Your task to perform on an android device: open device folders in google photos Image 0: 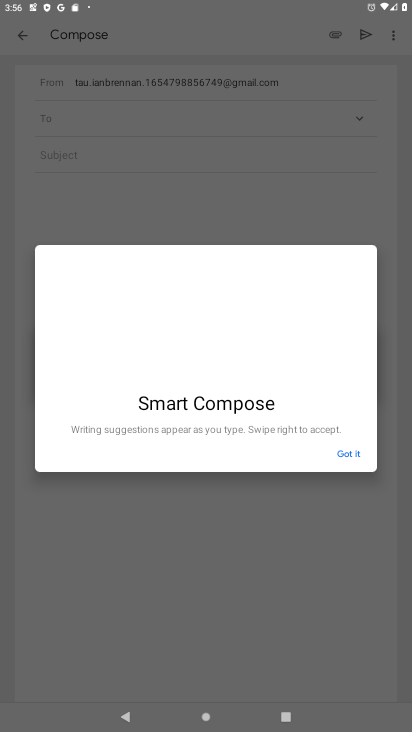
Step 0: press home button
Your task to perform on an android device: open device folders in google photos Image 1: 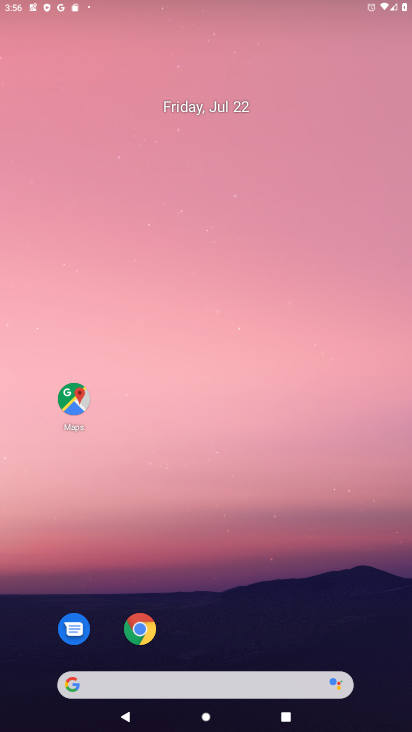
Step 1: drag from (219, 694) to (193, 138)
Your task to perform on an android device: open device folders in google photos Image 2: 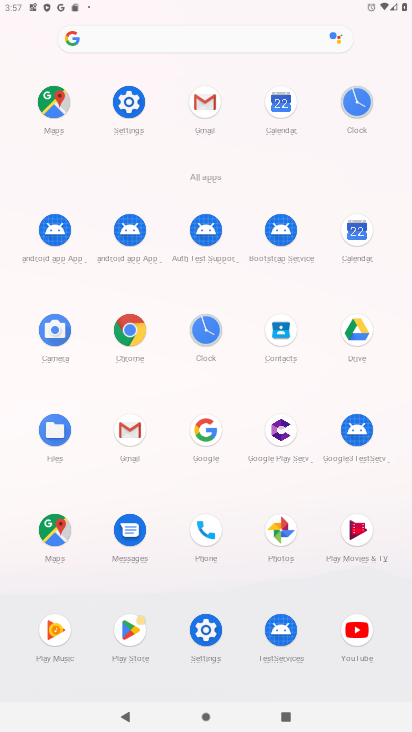
Step 2: click (289, 551)
Your task to perform on an android device: open device folders in google photos Image 3: 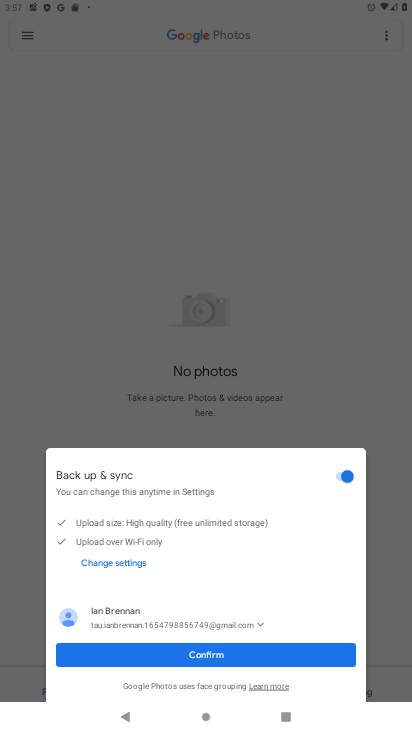
Step 3: click (251, 663)
Your task to perform on an android device: open device folders in google photos Image 4: 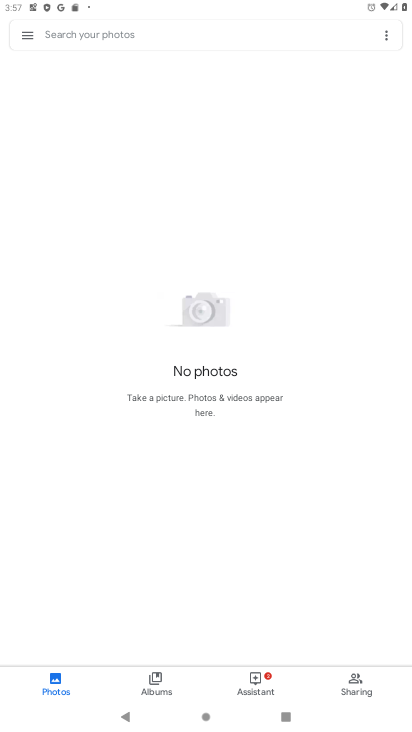
Step 4: click (24, 43)
Your task to perform on an android device: open device folders in google photos Image 5: 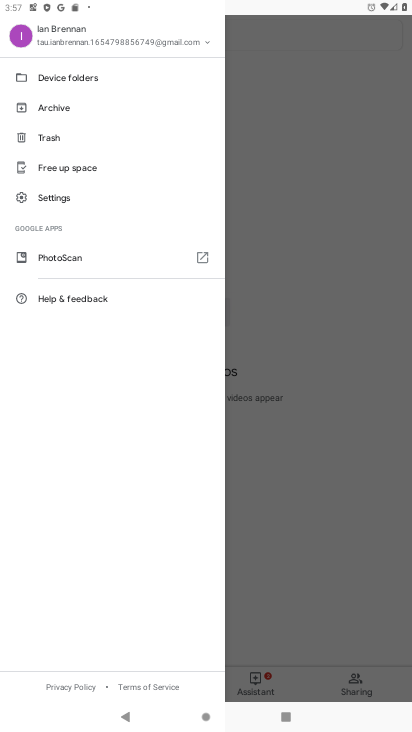
Step 5: click (85, 80)
Your task to perform on an android device: open device folders in google photos Image 6: 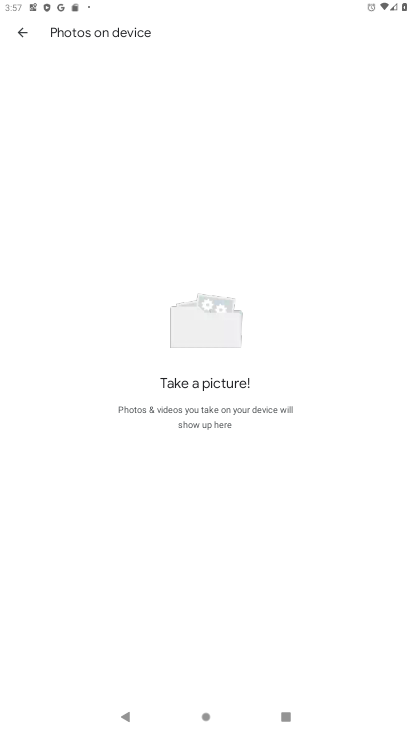
Step 6: click (28, 37)
Your task to perform on an android device: open device folders in google photos Image 7: 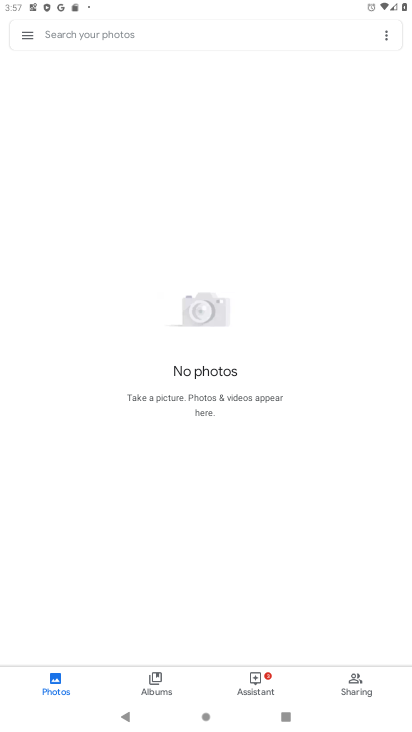
Step 7: task complete